Your task to perform on an android device: Search for vegetarian restaurants on Maps Image 0: 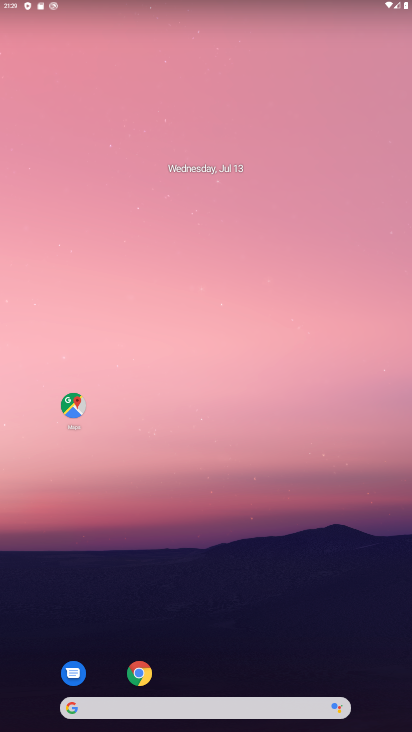
Step 0: click (70, 417)
Your task to perform on an android device: Search for vegetarian restaurants on Maps Image 1: 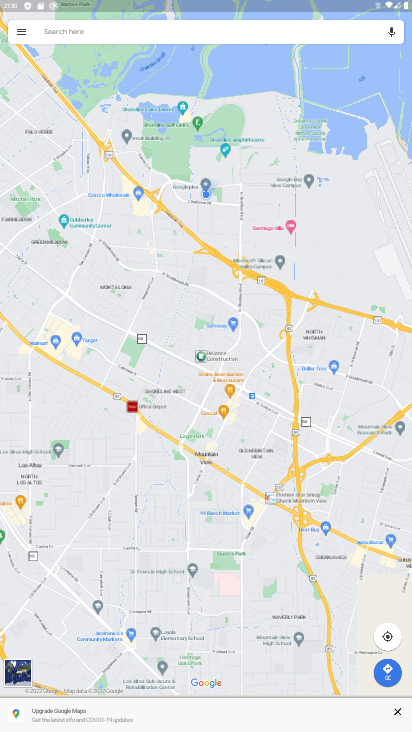
Step 1: click (85, 32)
Your task to perform on an android device: Search for vegetarian restaurants on Maps Image 2: 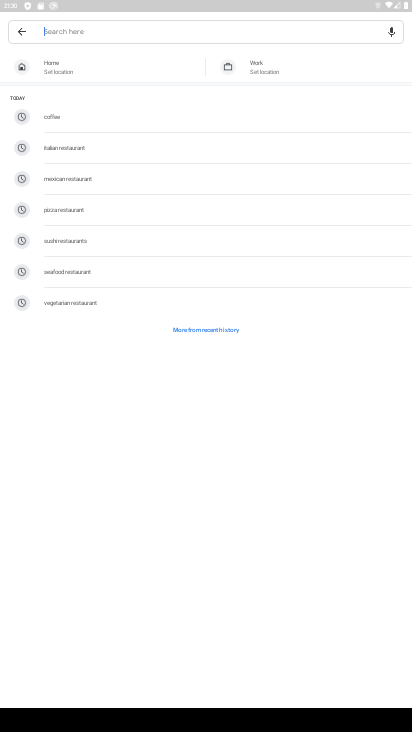
Step 2: type "vegetarian restaurants"
Your task to perform on an android device: Search for vegetarian restaurants on Maps Image 3: 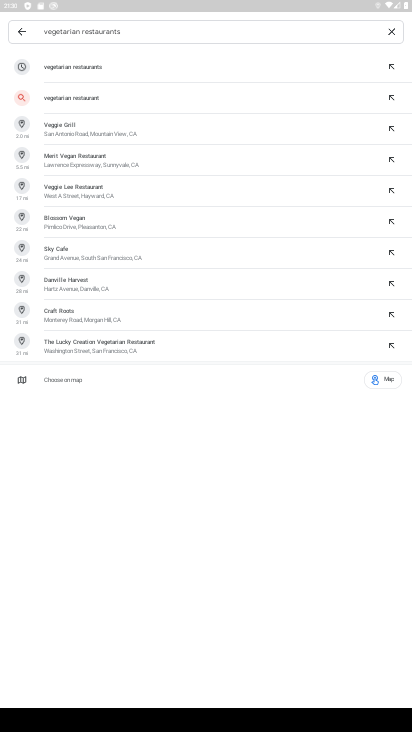
Step 3: type "vegetarian restaurants"
Your task to perform on an android device: Search for vegetarian restaurants on Maps Image 4: 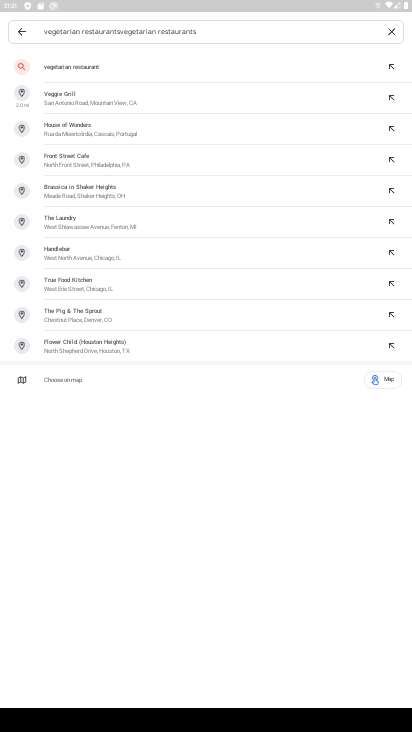
Step 4: click (54, 63)
Your task to perform on an android device: Search for vegetarian restaurants on Maps Image 5: 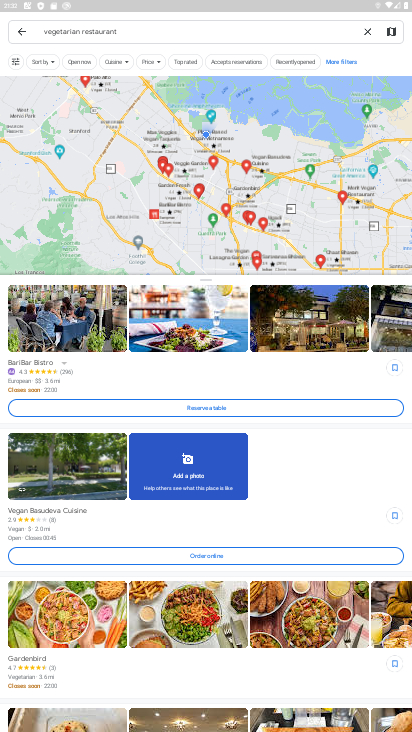
Step 5: task complete